Your task to perform on an android device: Clear all items from cart on bestbuy.com. Search for "usb-a to usb-b" on bestbuy.com, select the first entry, and add it to the cart. Image 0: 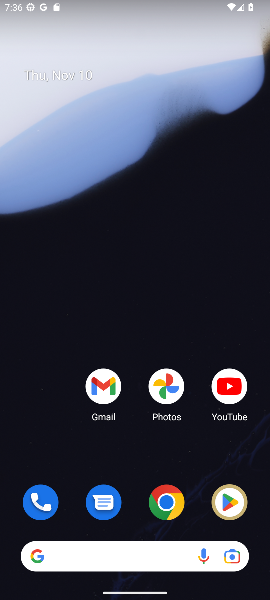
Step 0: drag from (112, 424) to (111, 213)
Your task to perform on an android device: Clear all items from cart on bestbuy.com. Search for "usb-a to usb-b" on bestbuy.com, select the first entry, and add it to the cart. Image 1: 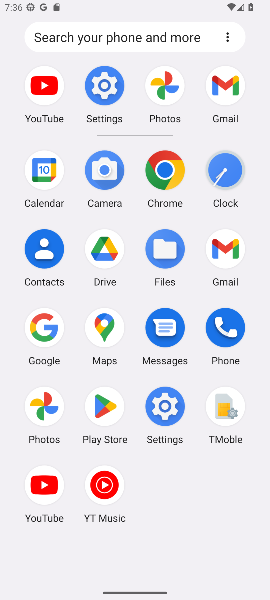
Step 1: click (37, 334)
Your task to perform on an android device: Clear all items from cart on bestbuy.com. Search for "usb-a to usb-b" on bestbuy.com, select the first entry, and add it to the cart. Image 2: 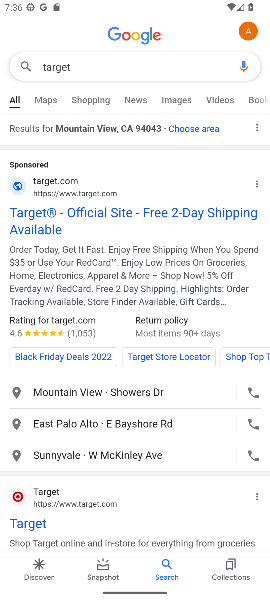
Step 2: click (121, 66)
Your task to perform on an android device: Clear all items from cart on bestbuy.com. Search for "usb-a to usb-b" on bestbuy.com, select the first entry, and add it to the cart. Image 3: 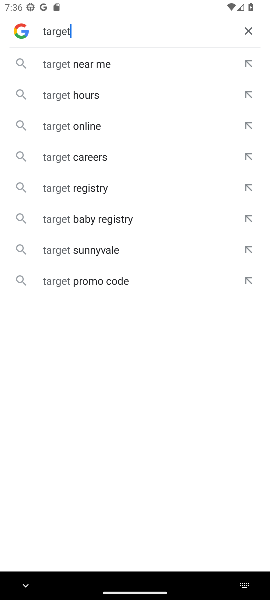
Step 3: click (248, 32)
Your task to perform on an android device: Clear all items from cart on bestbuy.com. Search for "usb-a to usb-b" on bestbuy.com, select the first entry, and add it to the cart. Image 4: 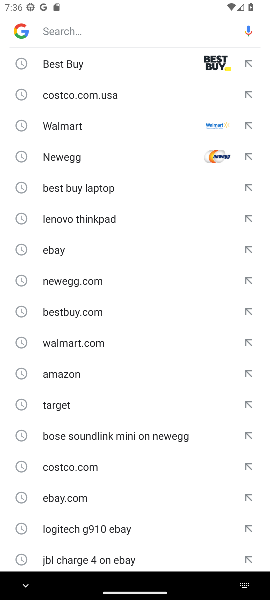
Step 4: click (97, 63)
Your task to perform on an android device: Clear all items from cart on bestbuy.com. Search for "usb-a to usb-b" on bestbuy.com, select the first entry, and add it to the cart. Image 5: 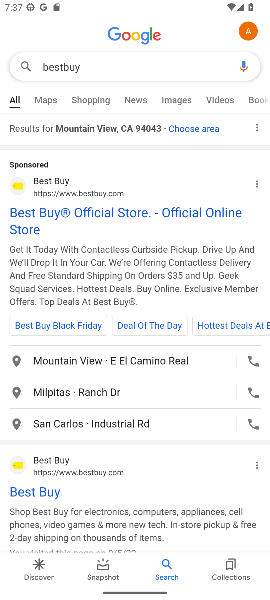
Step 5: click (62, 205)
Your task to perform on an android device: Clear all items from cart on bestbuy.com. Search for "usb-a to usb-b" on bestbuy.com, select the first entry, and add it to the cart. Image 6: 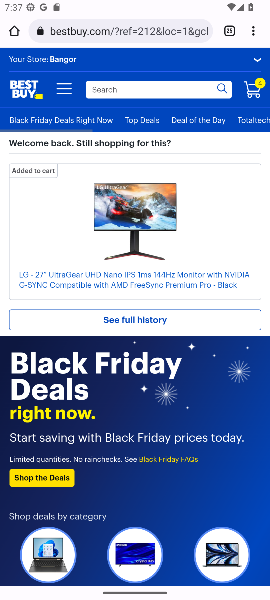
Step 6: click (120, 94)
Your task to perform on an android device: Clear all items from cart on bestbuy.com. Search for "usb-a to usb-b" on bestbuy.com, select the first entry, and add it to the cart. Image 7: 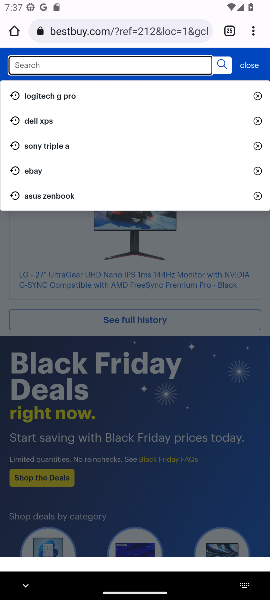
Step 7: type "usb-a to usb-b"
Your task to perform on an android device: Clear all items from cart on bestbuy.com. Search for "usb-a to usb-b" on bestbuy.com, select the first entry, and add it to the cart. Image 8: 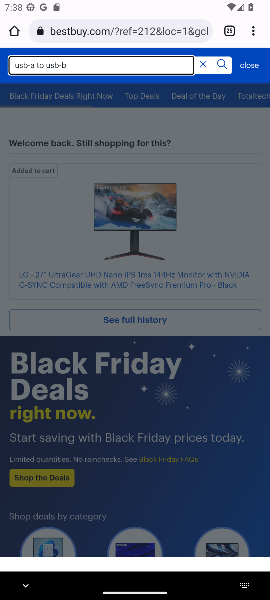
Step 8: click (225, 62)
Your task to perform on an android device: Clear all items from cart on bestbuy.com. Search for "usb-a to usb-b" on bestbuy.com, select the first entry, and add it to the cart. Image 9: 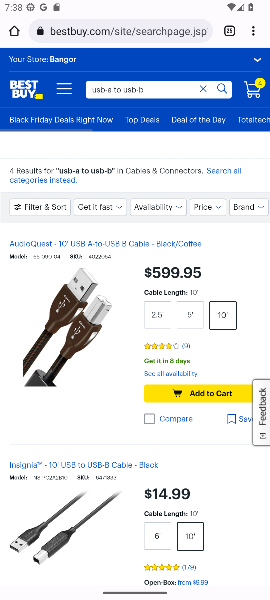
Step 9: click (193, 390)
Your task to perform on an android device: Clear all items from cart on bestbuy.com. Search for "usb-a to usb-b" on bestbuy.com, select the first entry, and add it to the cart. Image 10: 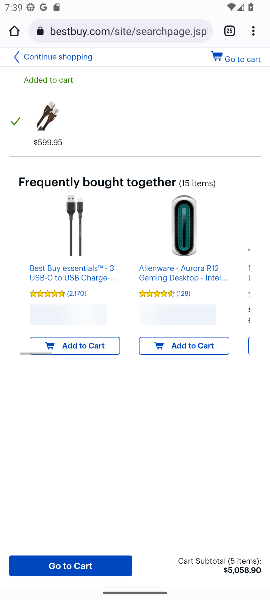
Step 10: task complete